Your task to perform on an android device: check android version Image 0: 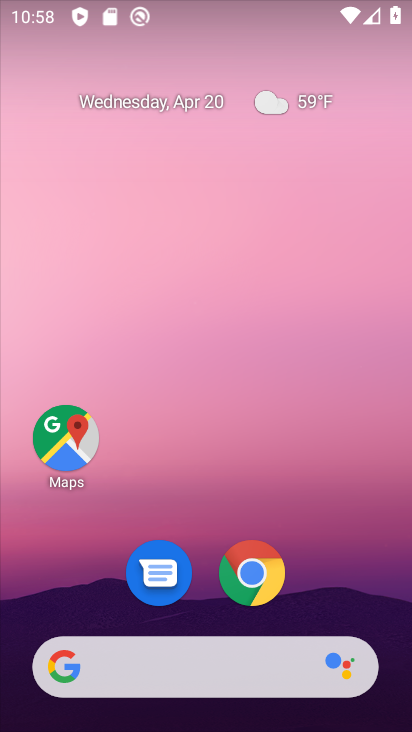
Step 0: drag from (356, 604) to (389, 0)
Your task to perform on an android device: check android version Image 1: 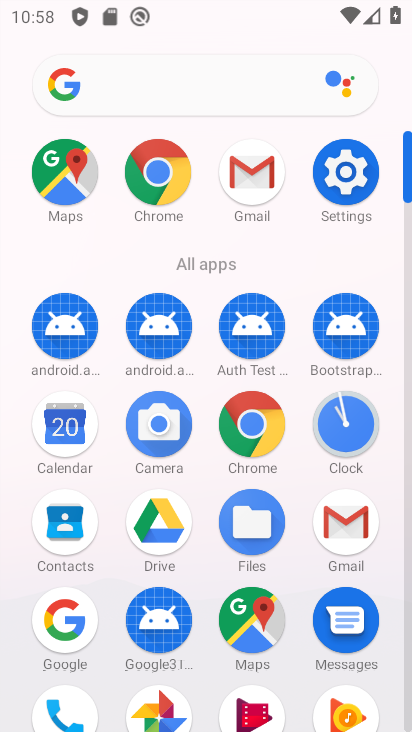
Step 1: click (347, 176)
Your task to perform on an android device: check android version Image 2: 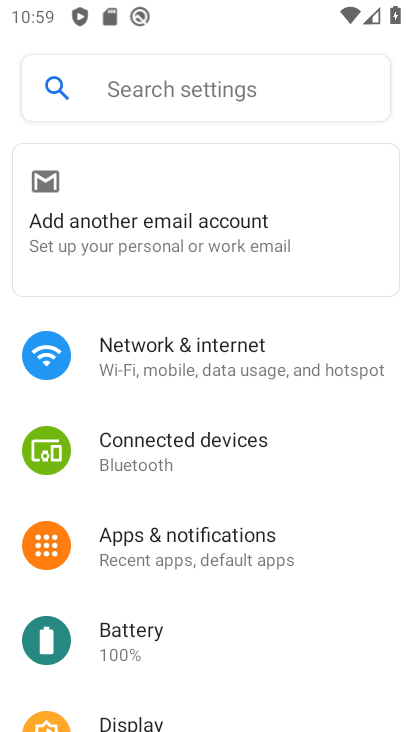
Step 2: drag from (286, 643) to (301, 121)
Your task to perform on an android device: check android version Image 3: 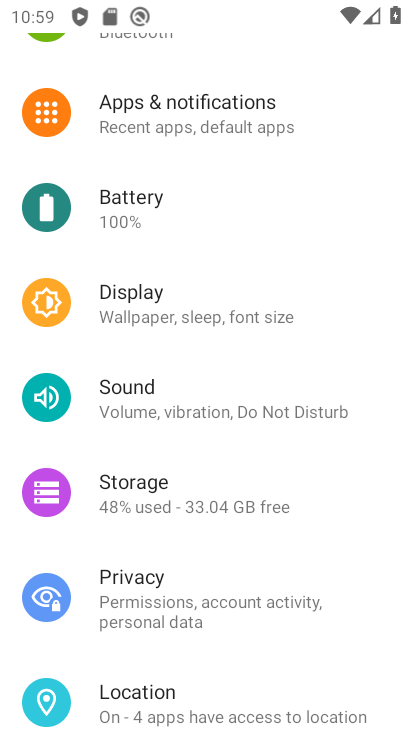
Step 3: drag from (330, 575) to (312, 157)
Your task to perform on an android device: check android version Image 4: 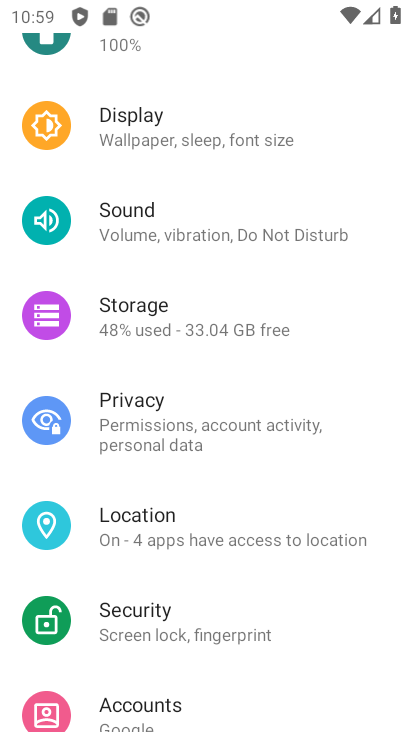
Step 4: drag from (355, 566) to (306, 149)
Your task to perform on an android device: check android version Image 5: 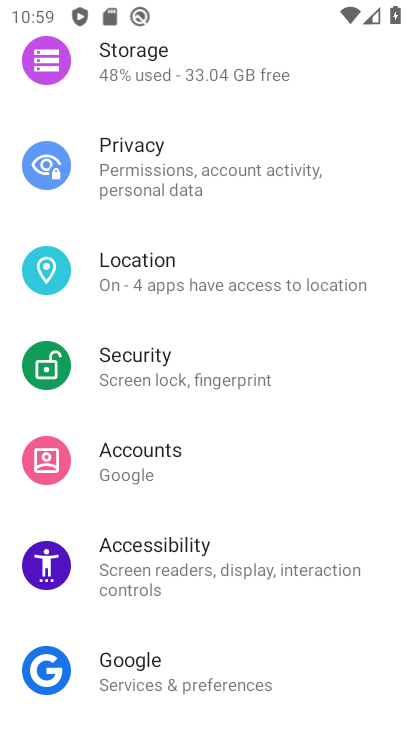
Step 5: drag from (390, 622) to (352, 117)
Your task to perform on an android device: check android version Image 6: 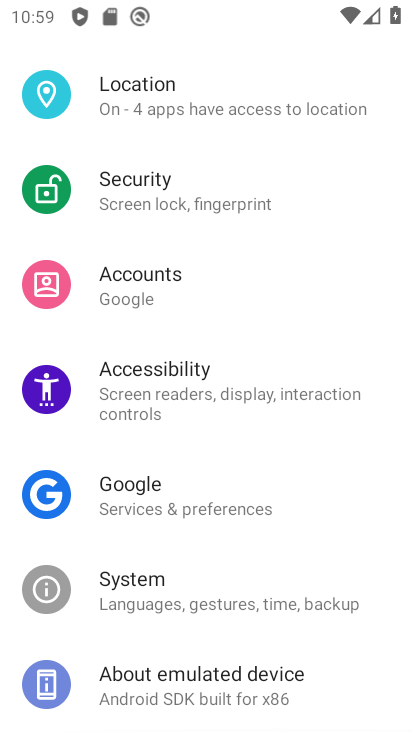
Step 6: drag from (318, 603) to (250, 265)
Your task to perform on an android device: check android version Image 7: 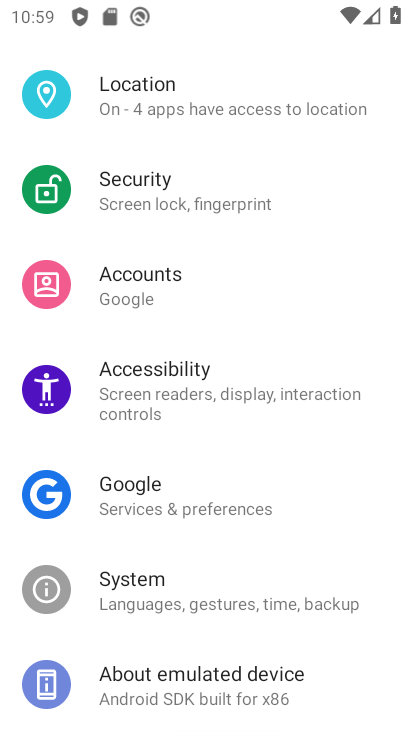
Step 7: click (180, 694)
Your task to perform on an android device: check android version Image 8: 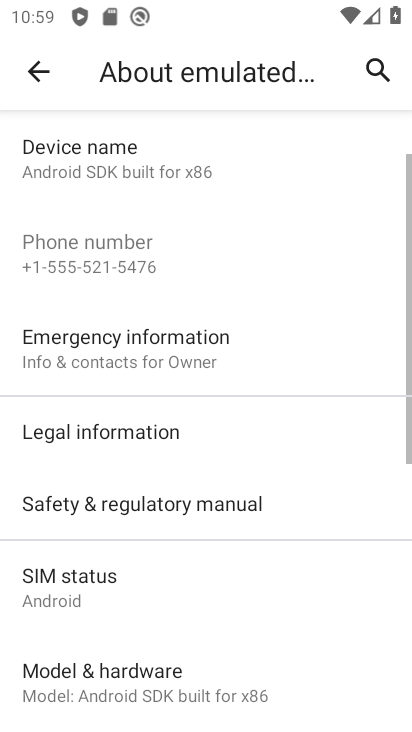
Step 8: drag from (339, 668) to (313, 154)
Your task to perform on an android device: check android version Image 9: 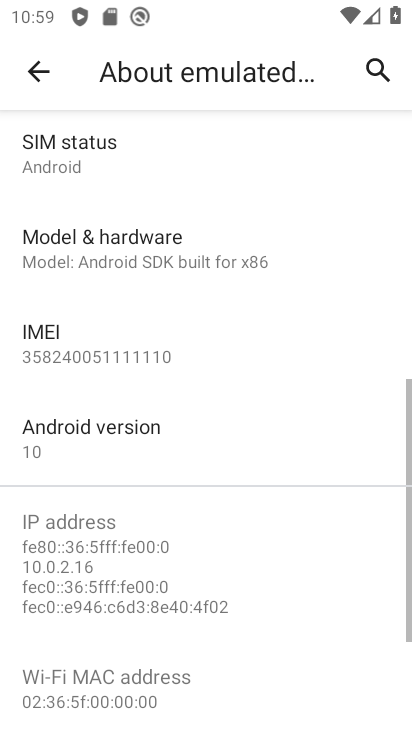
Step 9: drag from (252, 621) to (229, 254)
Your task to perform on an android device: check android version Image 10: 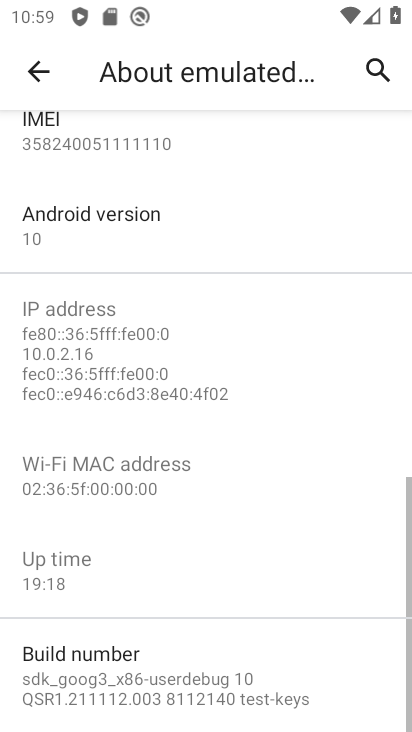
Step 10: click (80, 226)
Your task to perform on an android device: check android version Image 11: 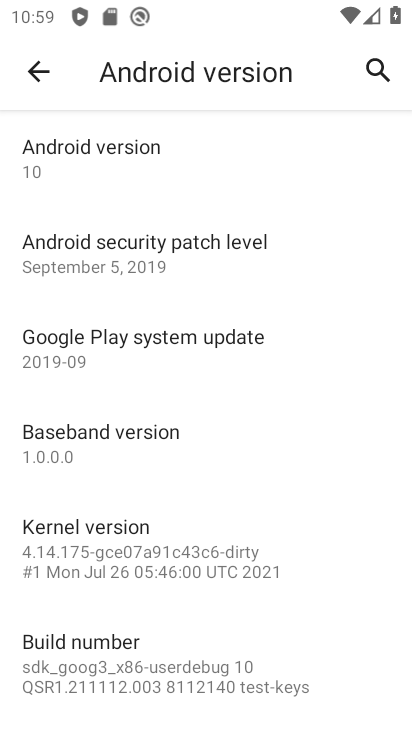
Step 11: task complete